Your task to perform on an android device: Open the contacts Image 0: 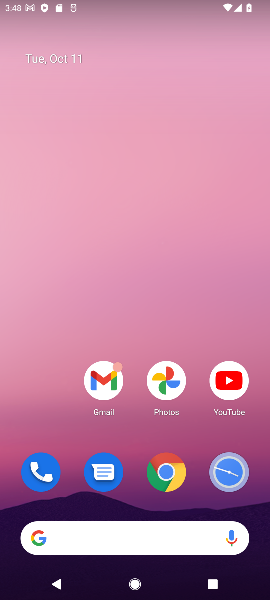
Step 0: drag from (142, 392) to (123, 139)
Your task to perform on an android device: Open the contacts Image 1: 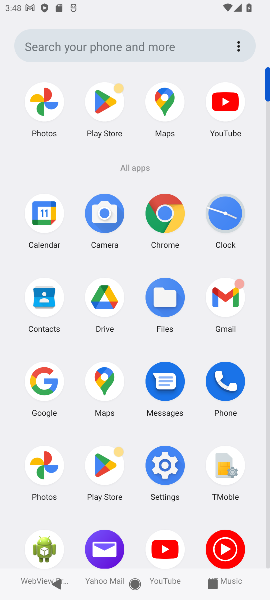
Step 1: click (43, 296)
Your task to perform on an android device: Open the contacts Image 2: 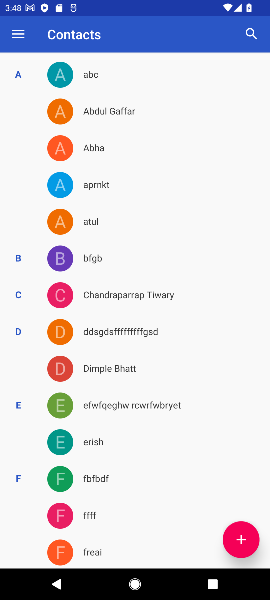
Step 2: task complete